Your task to perform on an android device: turn on the 24-hour format for clock Image 0: 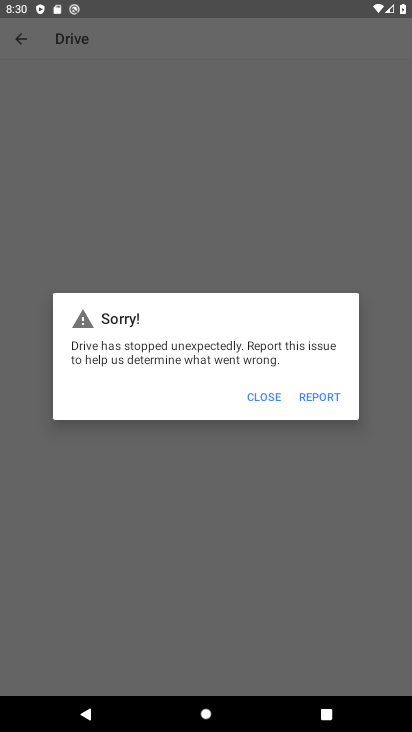
Step 0: press home button
Your task to perform on an android device: turn on the 24-hour format for clock Image 1: 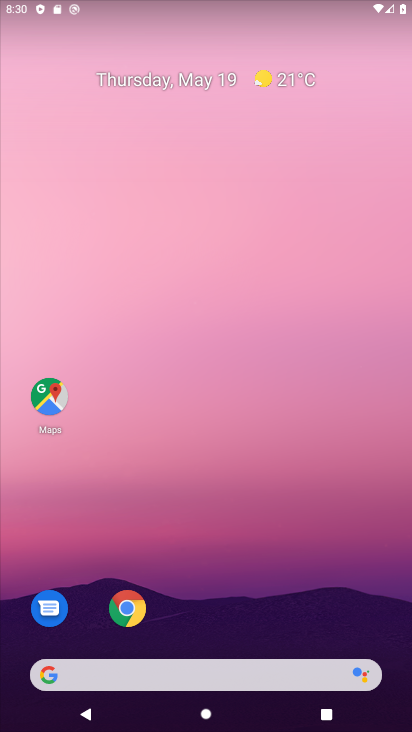
Step 1: drag from (284, 538) to (148, 32)
Your task to perform on an android device: turn on the 24-hour format for clock Image 2: 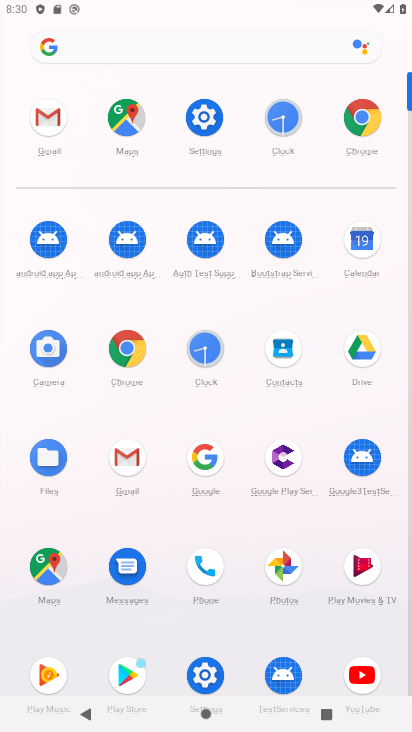
Step 2: click (205, 348)
Your task to perform on an android device: turn on the 24-hour format for clock Image 3: 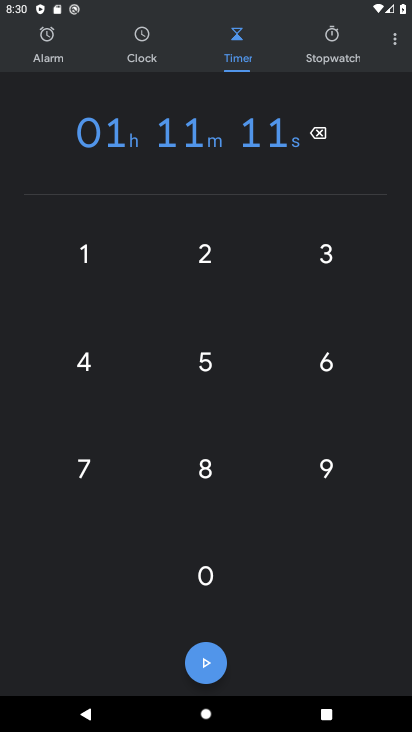
Step 3: click (394, 42)
Your task to perform on an android device: turn on the 24-hour format for clock Image 4: 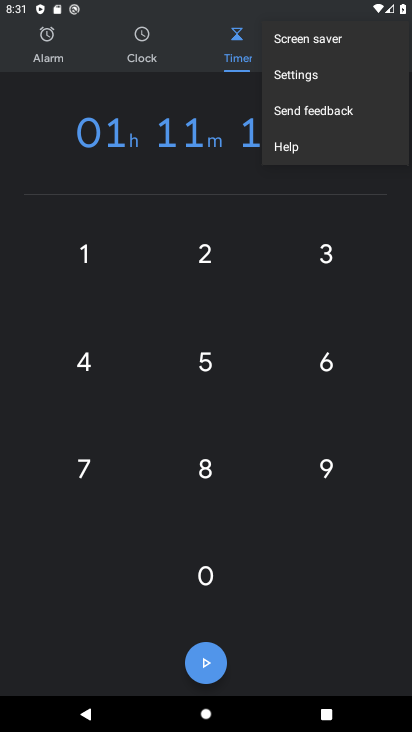
Step 4: click (299, 75)
Your task to perform on an android device: turn on the 24-hour format for clock Image 5: 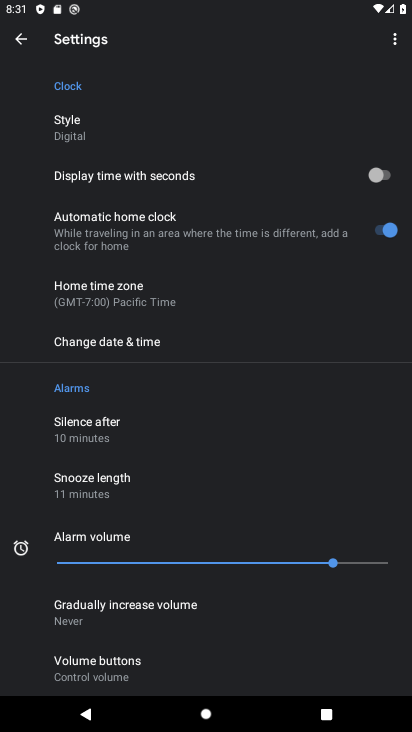
Step 5: drag from (192, 489) to (188, 212)
Your task to perform on an android device: turn on the 24-hour format for clock Image 6: 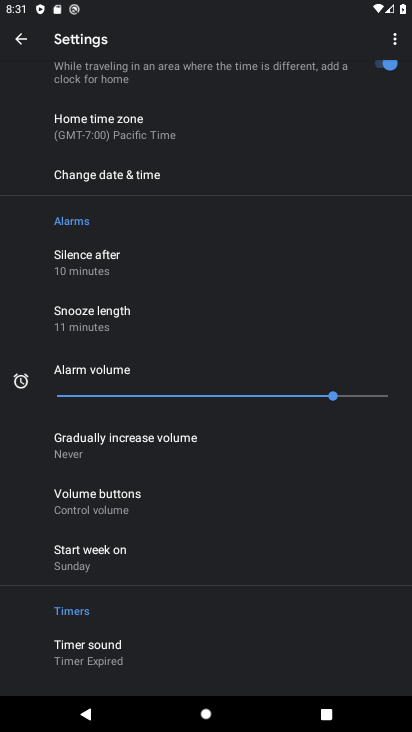
Step 6: click (124, 170)
Your task to perform on an android device: turn on the 24-hour format for clock Image 7: 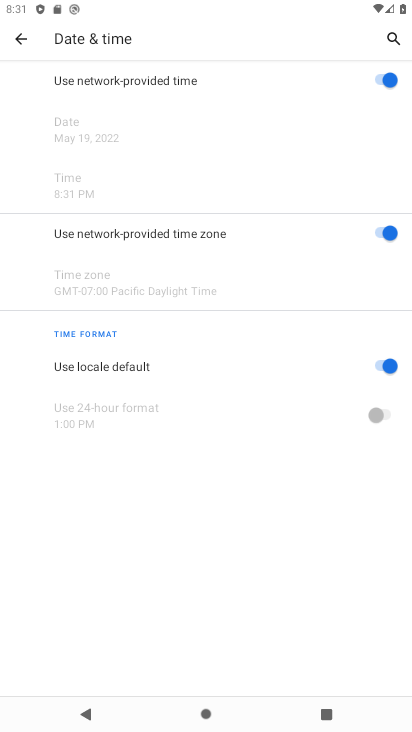
Step 7: click (375, 408)
Your task to perform on an android device: turn on the 24-hour format for clock Image 8: 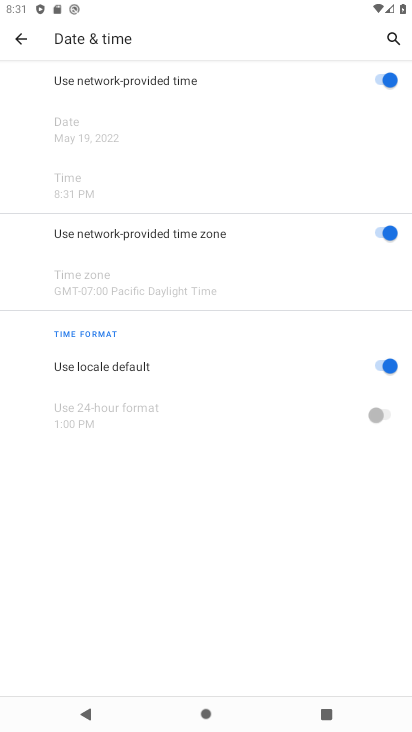
Step 8: click (391, 358)
Your task to perform on an android device: turn on the 24-hour format for clock Image 9: 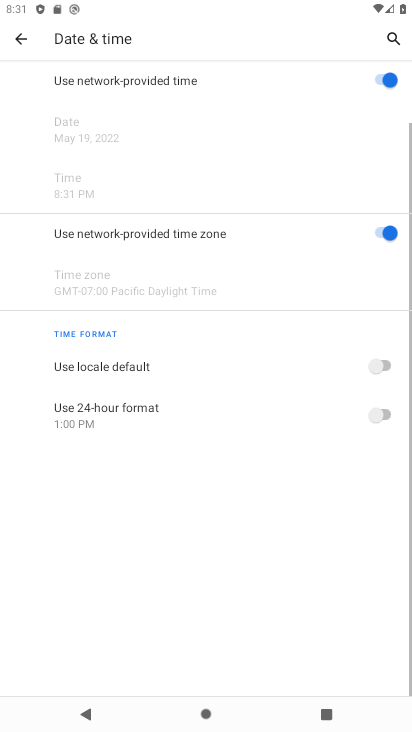
Step 9: click (377, 408)
Your task to perform on an android device: turn on the 24-hour format for clock Image 10: 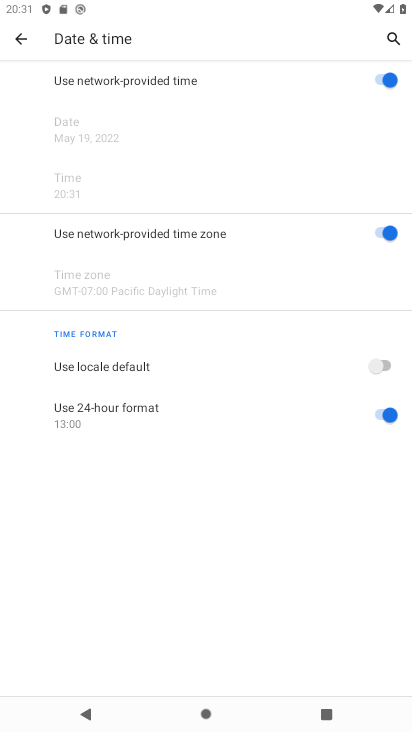
Step 10: task complete